Your task to perform on an android device: Add macbook pro 15 inch to the cart on target.com, then select checkout. Image 0: 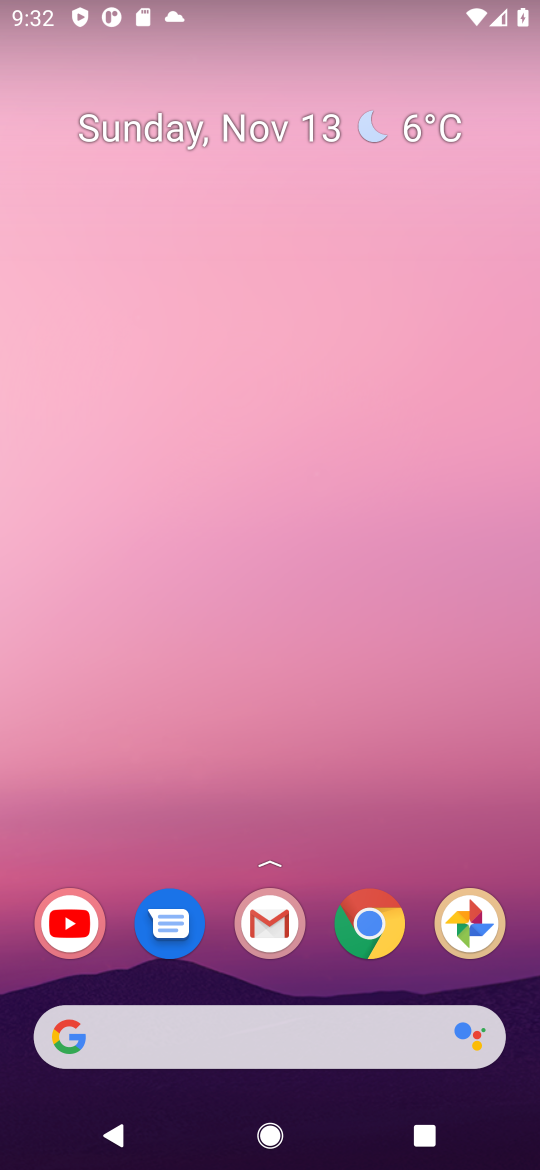
Step 0: click (379, 923)
Your task to perform on an android device: Add macbook pro 15 inch to the cart on target.com, then select checkout. Image 1: 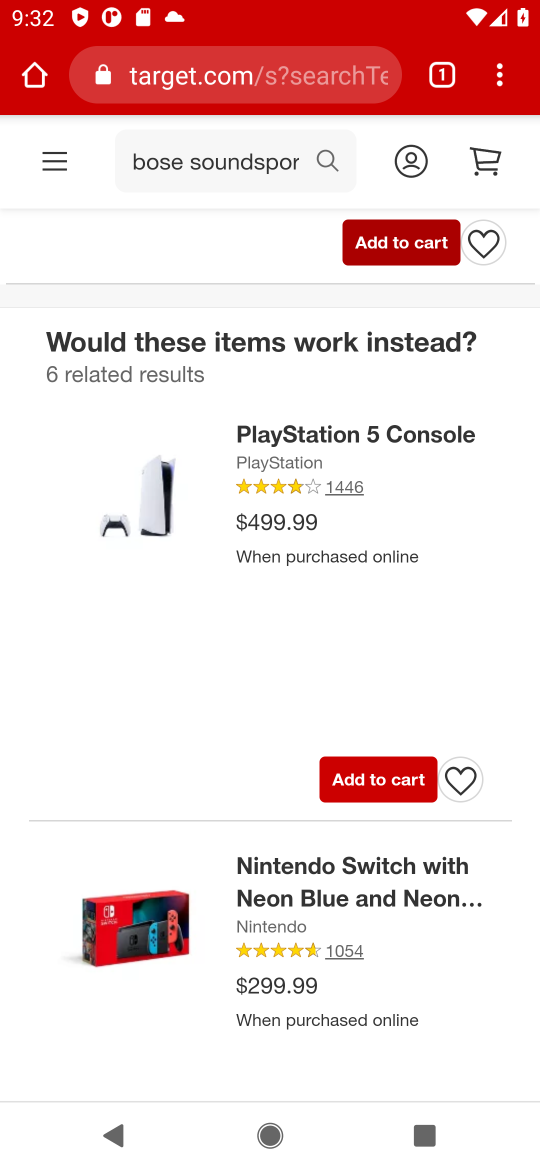
Step 1: click (331, 153)
Your task to perform on an android device: Add macbook pro 15 inch to the cart on target.com, then select checkout. Image 2: 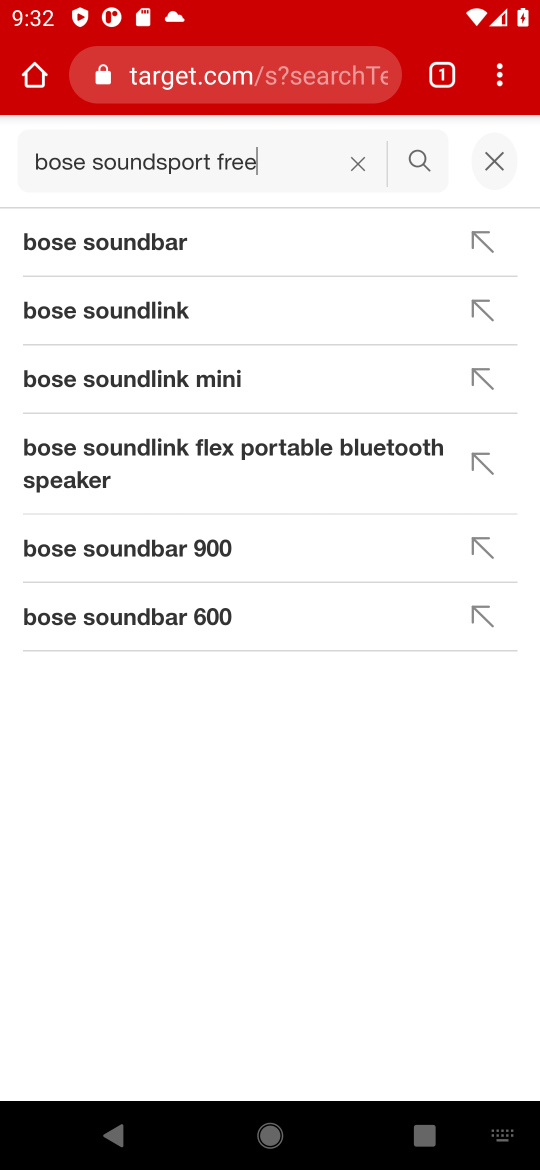
Step 2: click (351, 165)
Your task to perform on an android device: Add macbook pro 15 inch to the cart on target.com, then select checkout. Image 3: 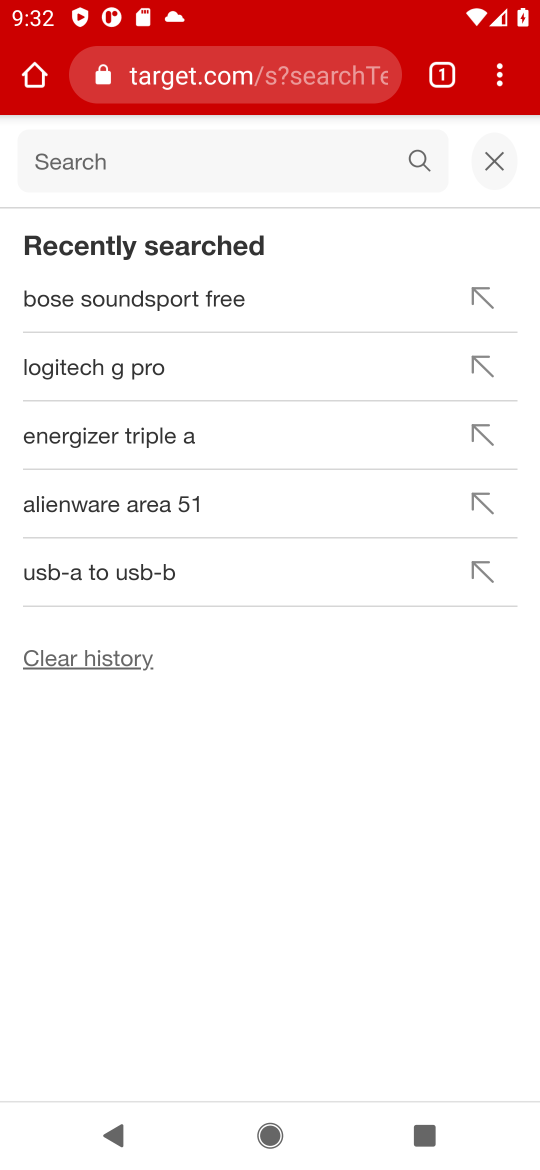
Step 3: type "macbook pro 15 inch"
Your task to perform on an android device: Add macbook pro 15 inch to the cart on target.com, then select checkout. Image 4: 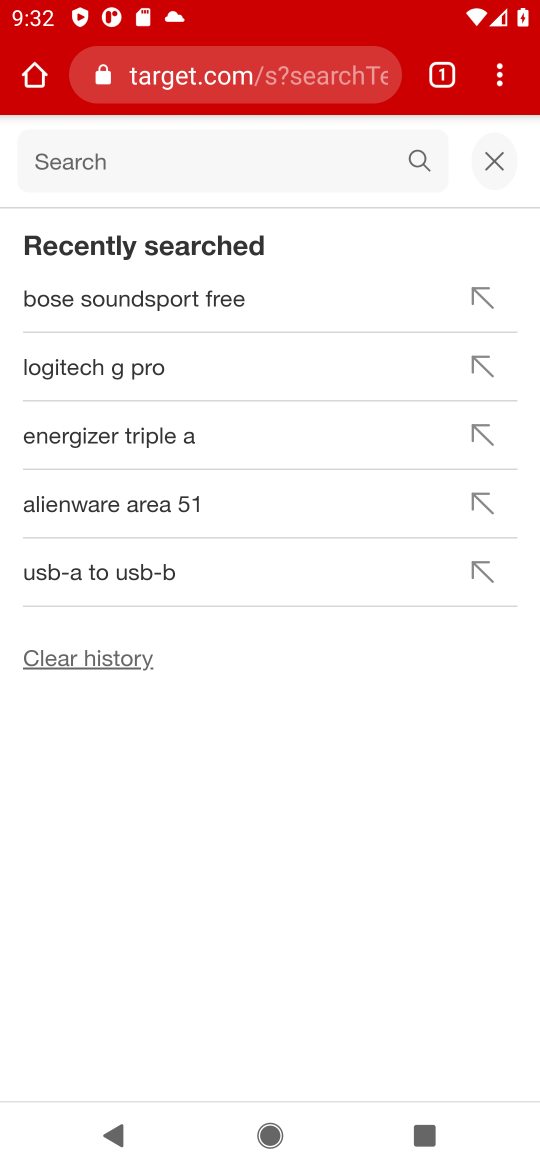
Step 4: press enter
Your task to perform on an android device: Add macbook pro 15 inch to the cart on target.com, then select checkout. Image 5: 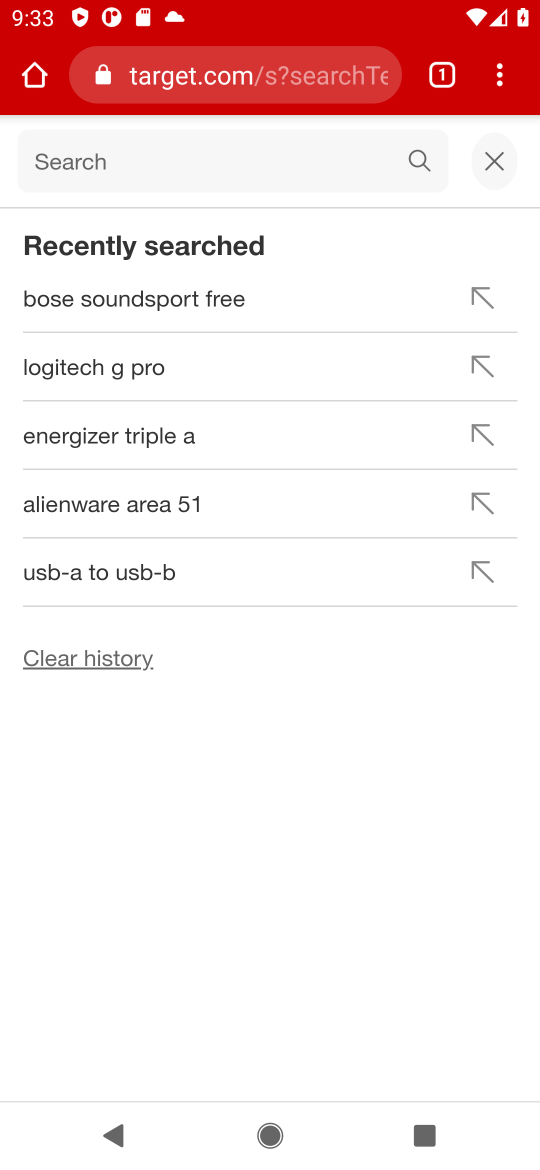
Step 5: click (419, 159)
Your task to perform on an android device: Add macbook pro 15 inch to the cart on target.com, then select checkout. Image 6: 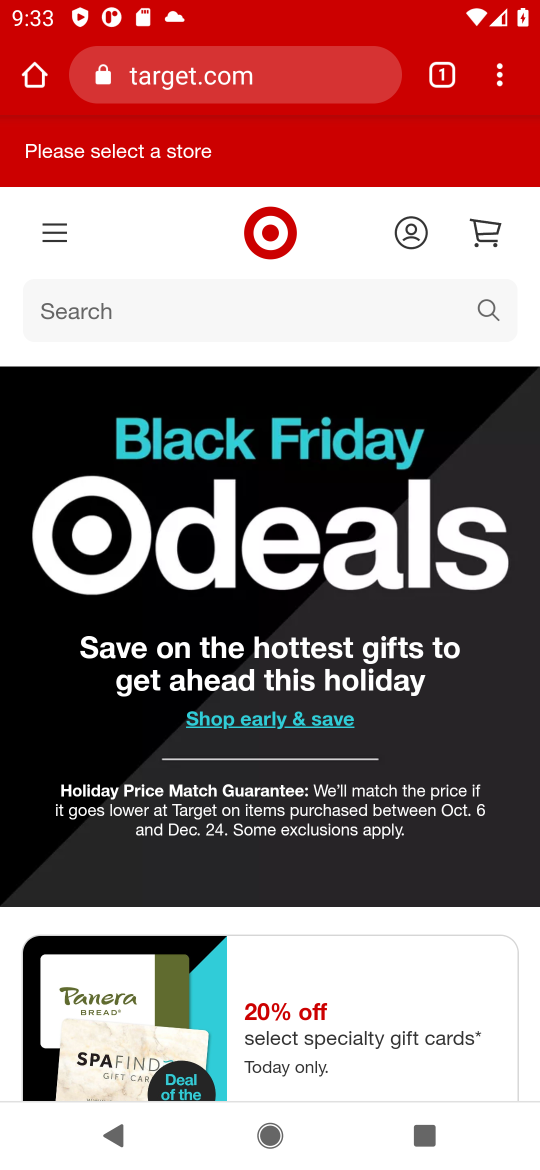
Step 6: click (482, 305)
Your task to perform on an android device: Add macbook pro 15 inch to the cart on target.com, then select checkout. Image 7: 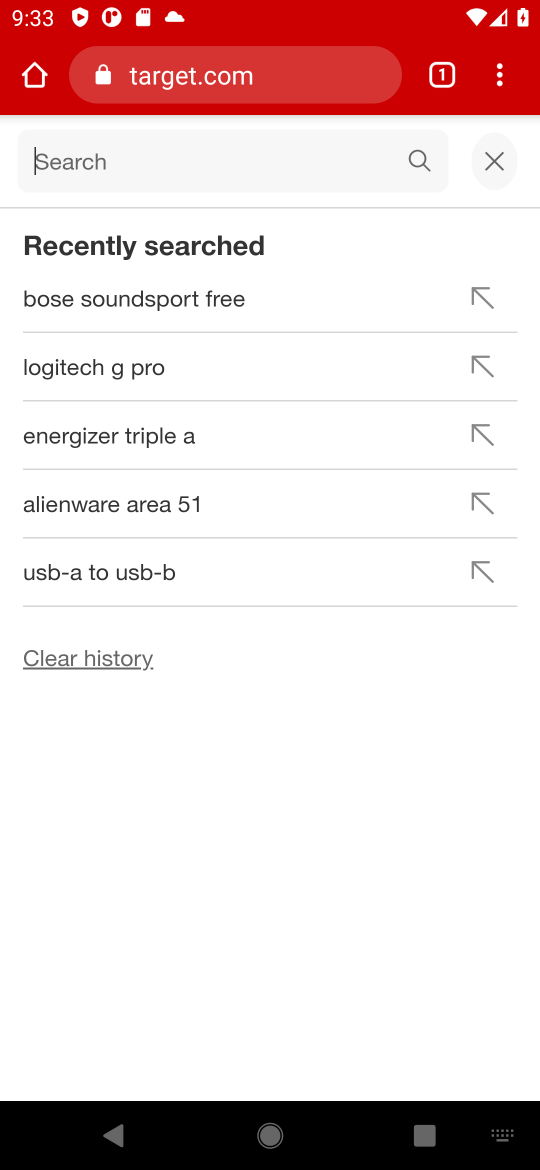
Step 7: type "macbook pro 15 inch"
Your task to perform on an android device: Add macbook pro 15 inch to the cart on target.com, then select checkout. Image 8: 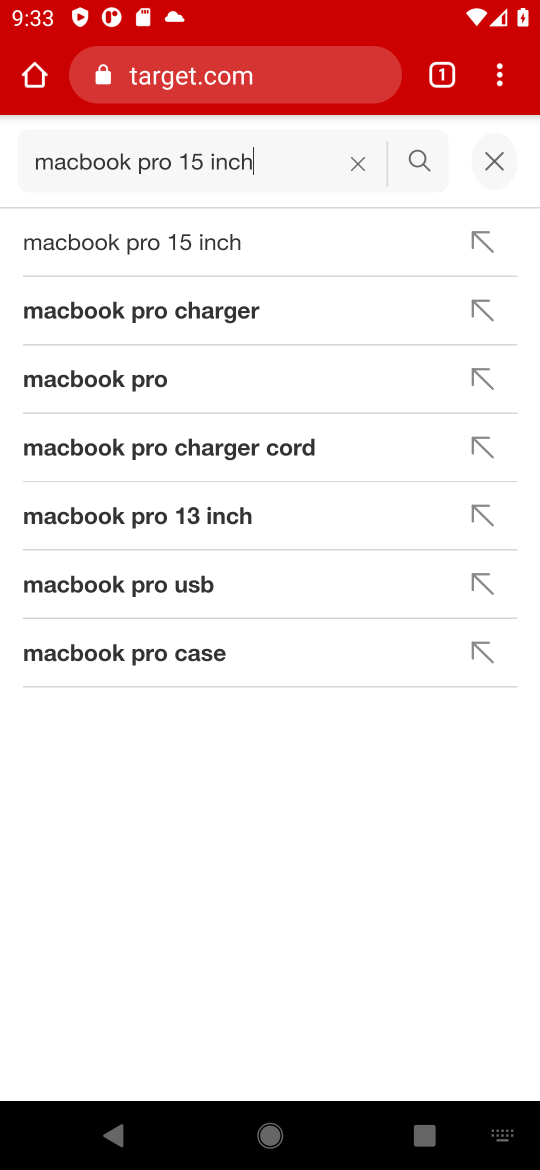
Step 8: press enter
Your task to perform on an android device: Add macbook pro 15 inch to the cart on target.com, then select checkout. Image 9: 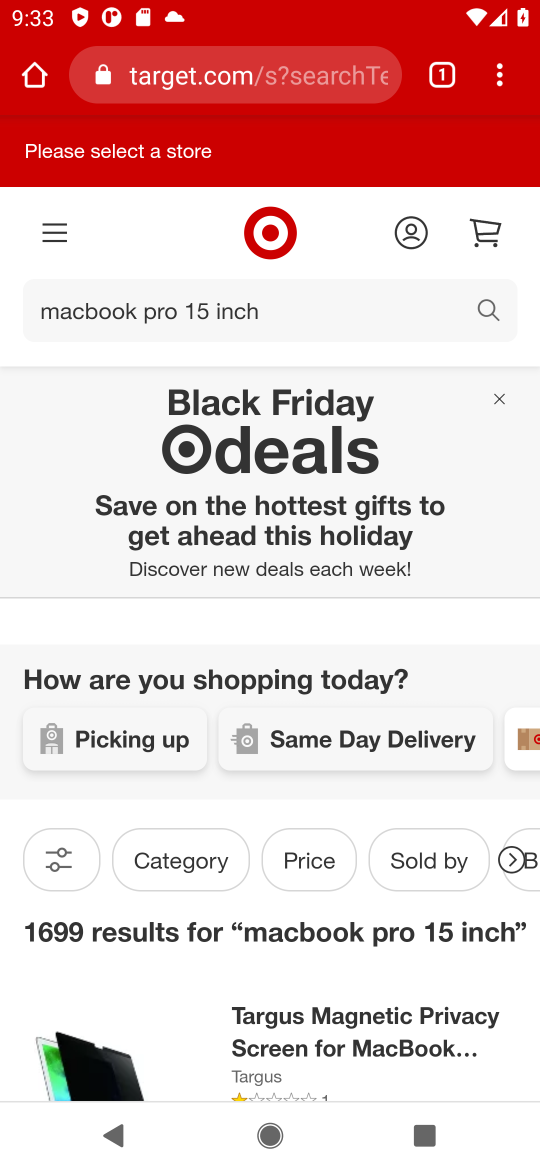
Step 9: task complete